Your task to perform on an android device: turn off improve location accuracy Image 0: 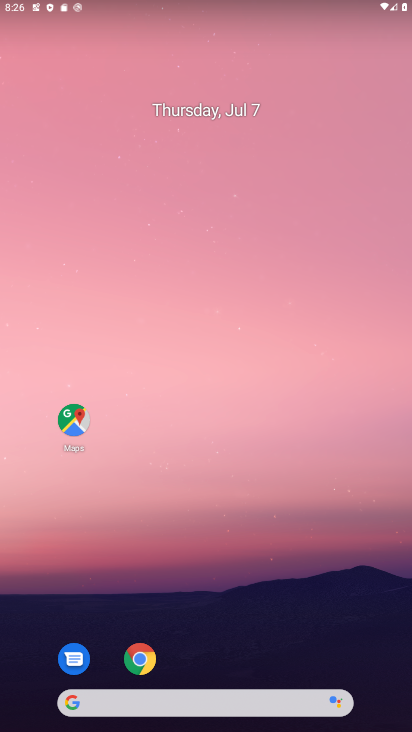
Step 0: drag from (226, 636) to (337, 11)
Your task to perform on an android device: turn off improve location accuracy Image 1: 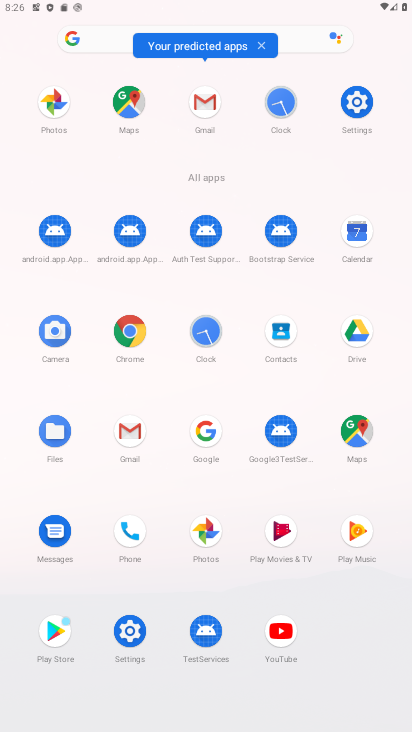
Step 1: click (129, 640)
Your task to perform on an android device: turn off improve location accuracy Image 2: 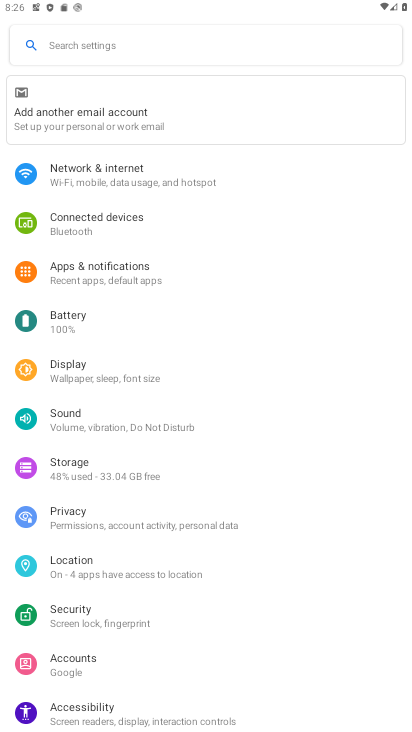
Step 2: click (138, 573)
Your task to perform on an android device: turn off improve location accuracy Image 3: 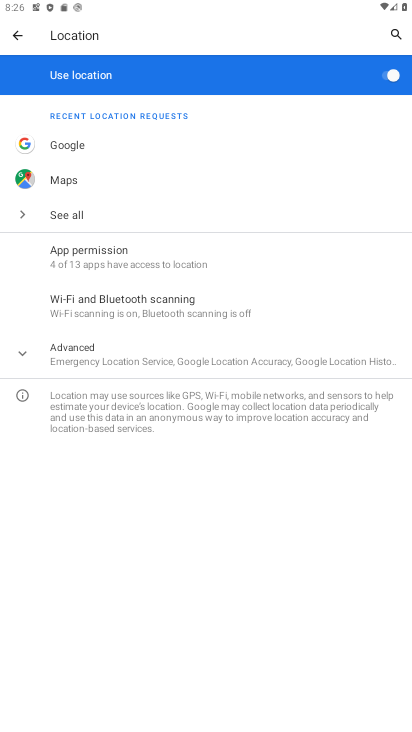
Step 3: click (100, 353)
Your task to perform on an android device: turn off improve location accuracy Image 4: 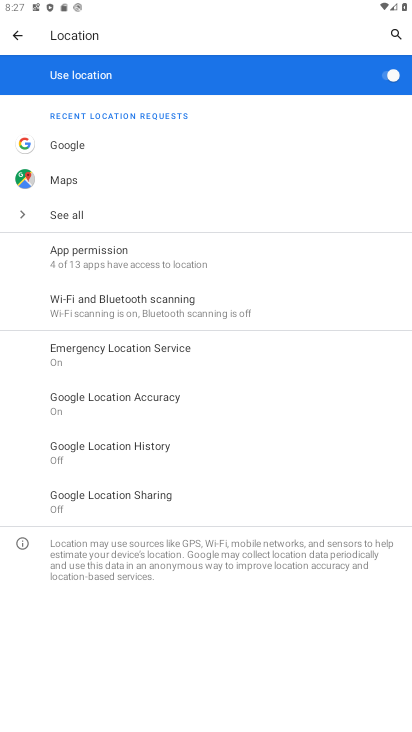
Step 4: click (144, 400)
Your task to perform on an android device: turn off improve location accuracy Image 5: 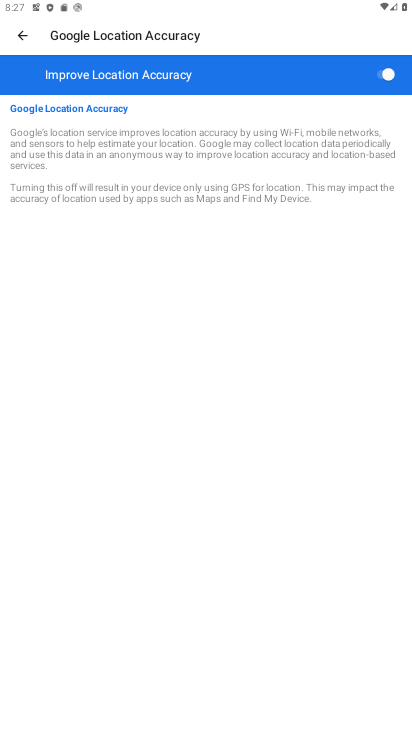
Step 5: click (369, 78)
Your task to perform on an android device: turn off improve location accuracy Image 6: 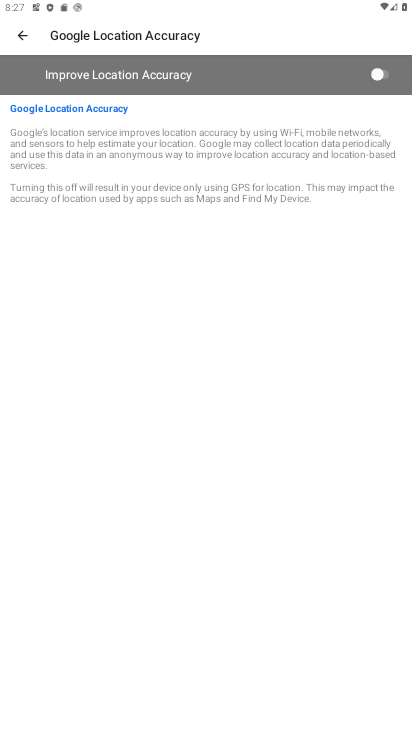
Step 6: task complete